Your task to perform on an android device: What's the weather today? Image 0: 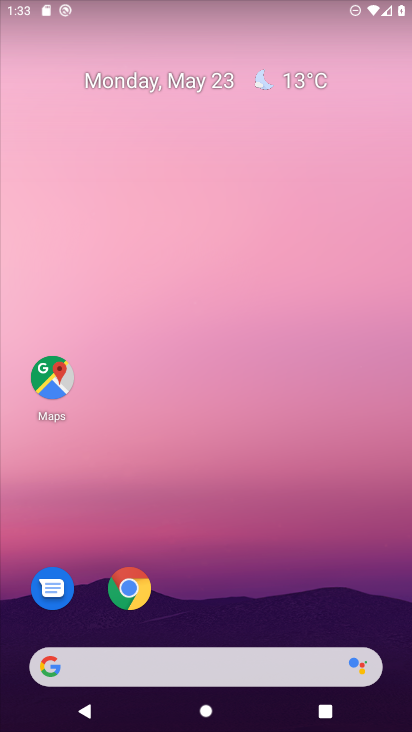
Step 0: drag from (134, 653) to (158, 233)
Your task to perform on an android device: What's the weather today? Image 1: 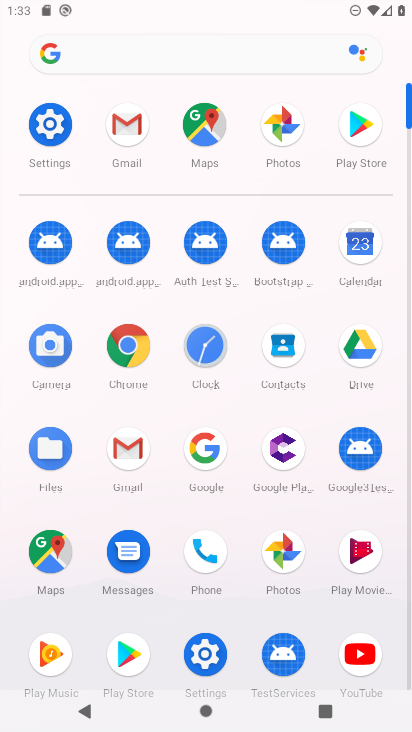
Step 1: click (198, 448)
Your task to perform on an android device: What's the weather today? Image 2: 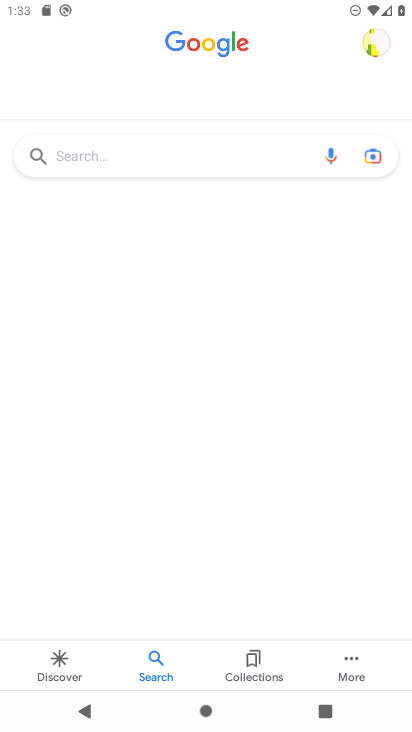
Step 2: click (120, 157)
Your task to perform on an android device: What's the weather today? Image 3: 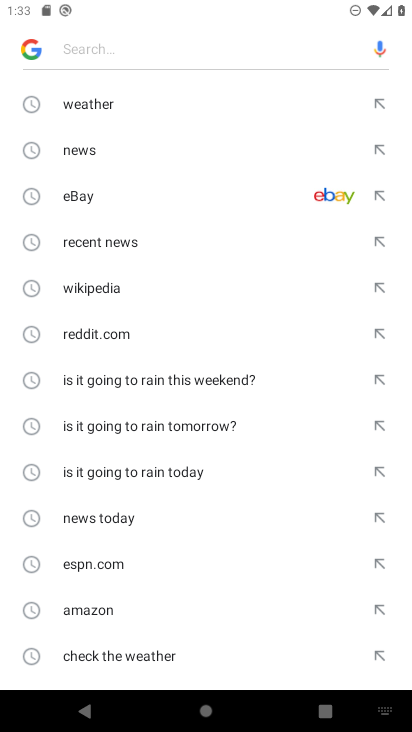
Step 3: click (93, 105)
Your task to perform on an android device: What's the weather today? Image 4: 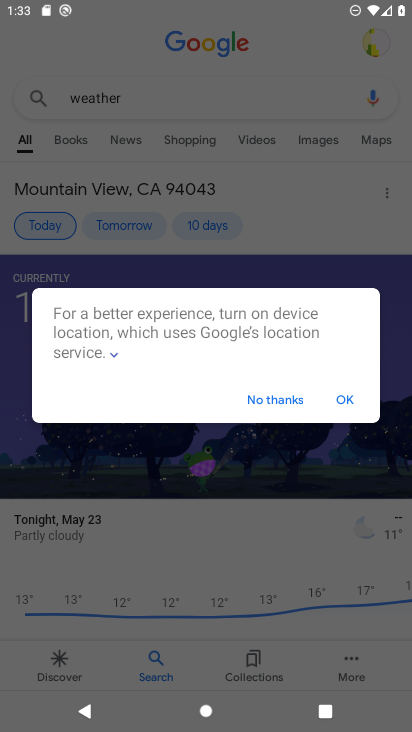
Step 4: click (340, 398)
Your task to perform on an android device: What's the weather today? Image 5: 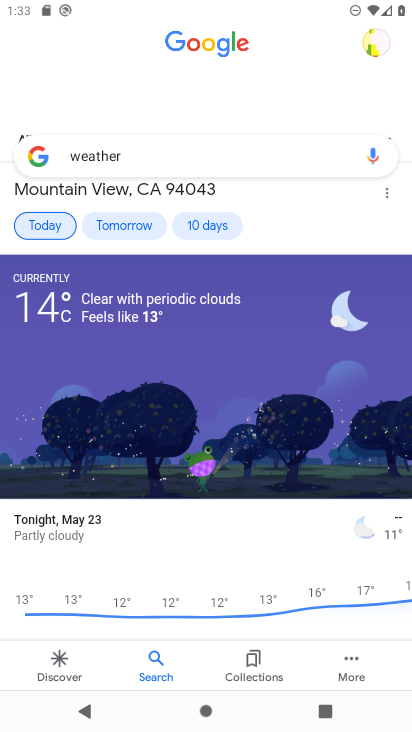
Step 5: task complete